Your task to perform on an android device: empty trash in the gmail app Image 0: 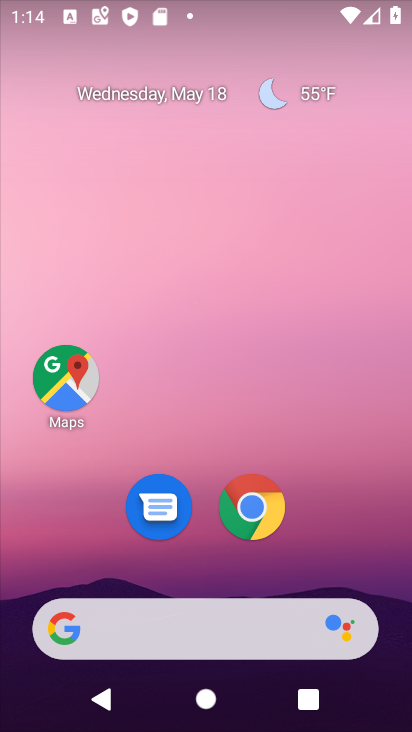
Step 0: drag from (402, 633) to (344, 115)
Your task to perform on an android device: empty trash in the gmail app Image 1: 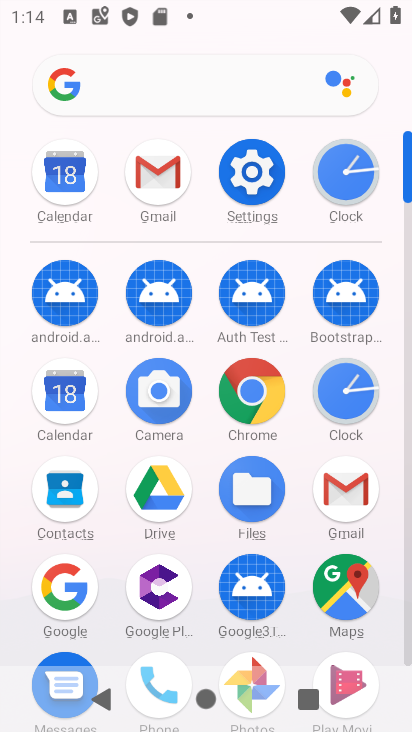
Step 1: click (408, 662)
Your task to perform on an android device: empty trash in the gmail app Image 2: 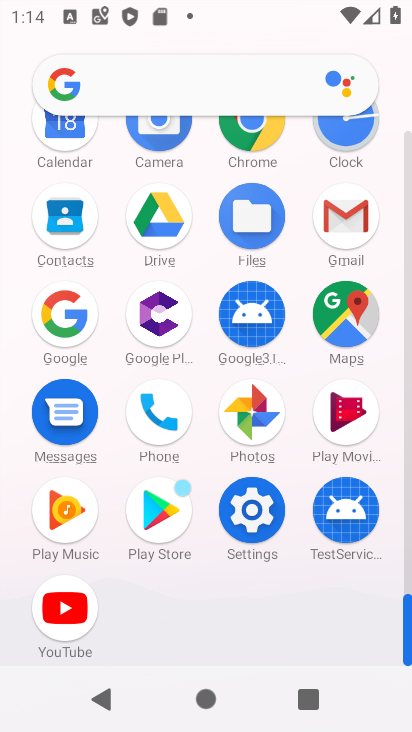
Step 2: click (342, 211)
Your task to perform on an android device: empty trash in the gmail app Image 3: 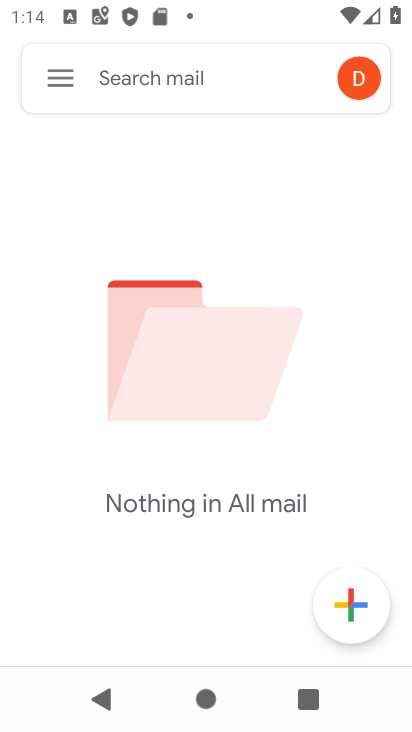
Step 3: click (69, 82)
Your task to perform on an android device: empty trash in the gmail app Image 4: 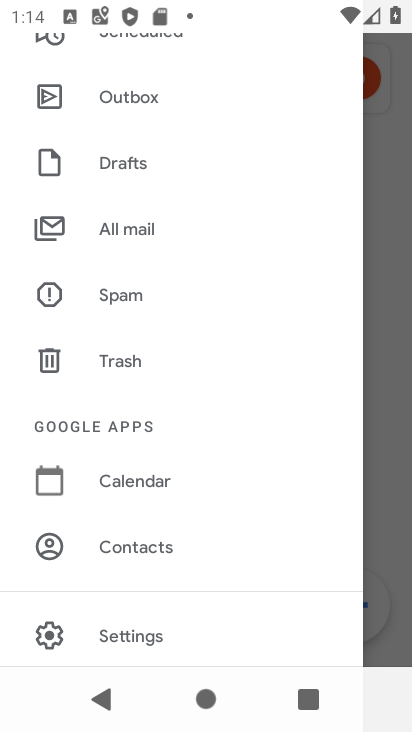
Step 4: click (139, 355)
Your task to perform on an android device: empty trash in the gmail app Image 5: 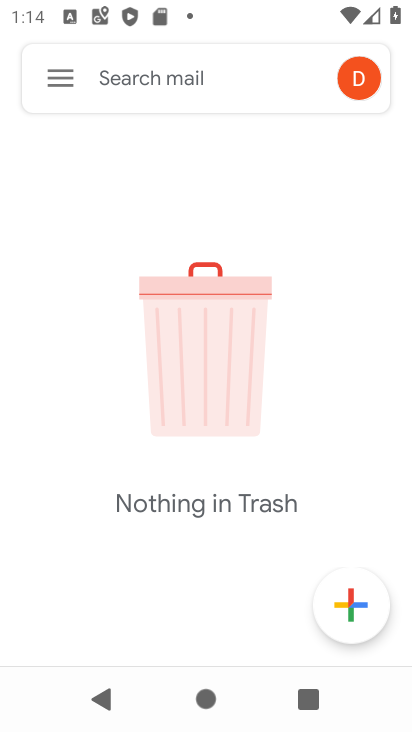
Step 5: task complete